Your task to perform on an android device: Go to Android settings Image 0: 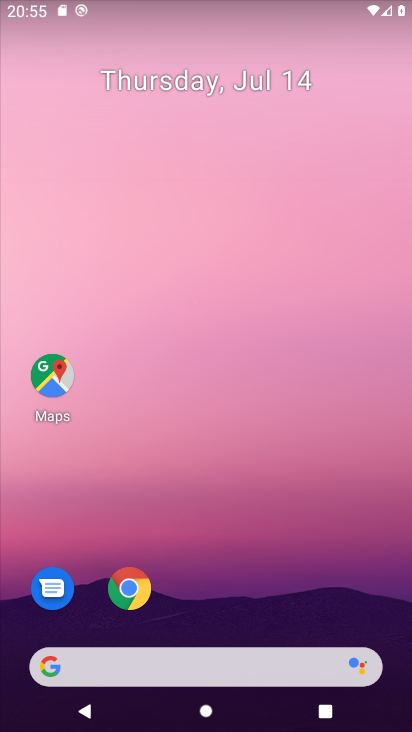
Step 0: drag from (367, 593) to (370, 128)
Your task to perform on an android device: Go to Android settings Image 1: 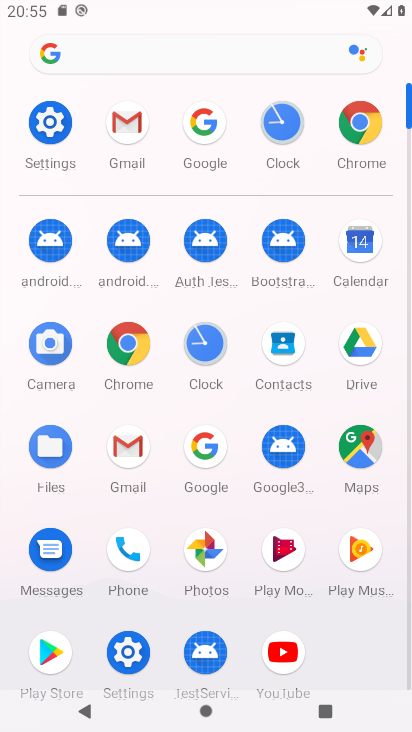
Step 1: click (129, 647)
Your task to perform on an android device: Go to Android settings Image 2: 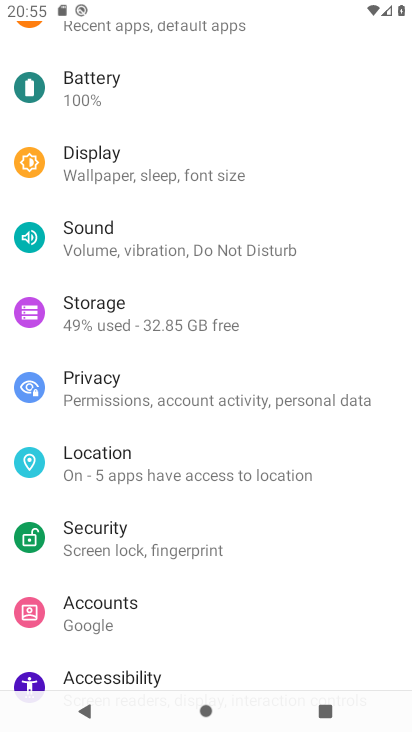
Step 2: drag from (342, 247) to (356, 332)
Your task to perform on an android device: Go to Android settings Image 3: 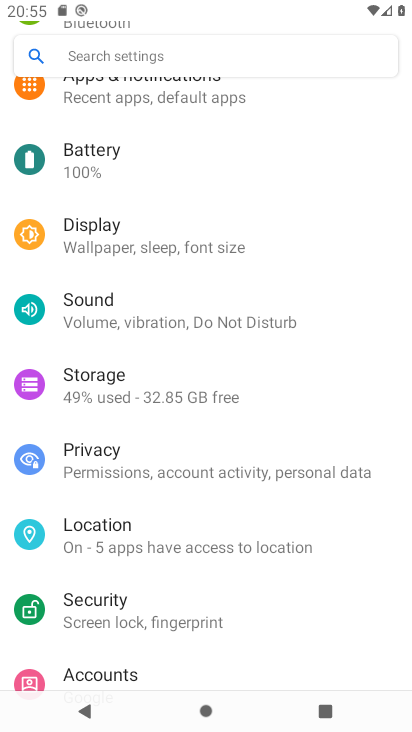
Step 3: drag from (355, 193) to (354, 294)
Your task to perform on an android device: Go to Android settings Image 4: 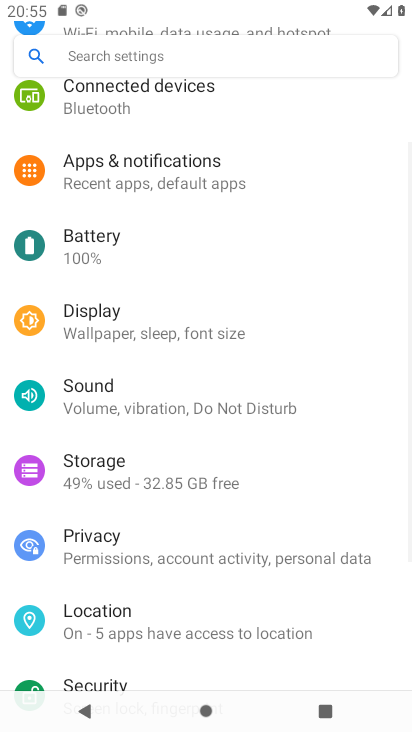
Step 4: drag from (342, 229) to (349, 409)
Your task to perform on an android device: Go to Android settings Image 5: 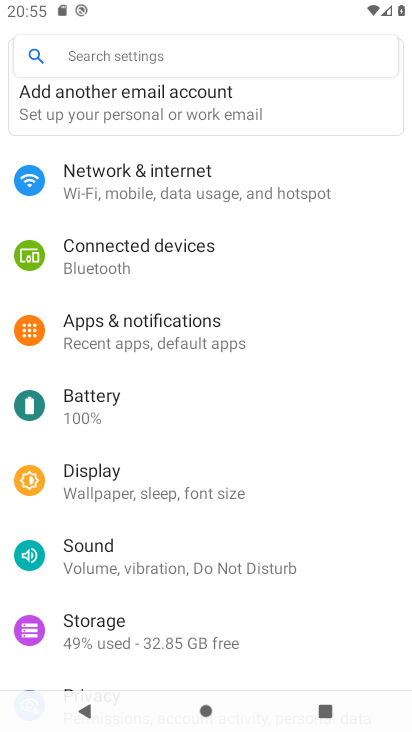
Step 5: drag from (367, 256) to (364, 438)
Your task to perform on an android device: Go to Android settings Image 6: 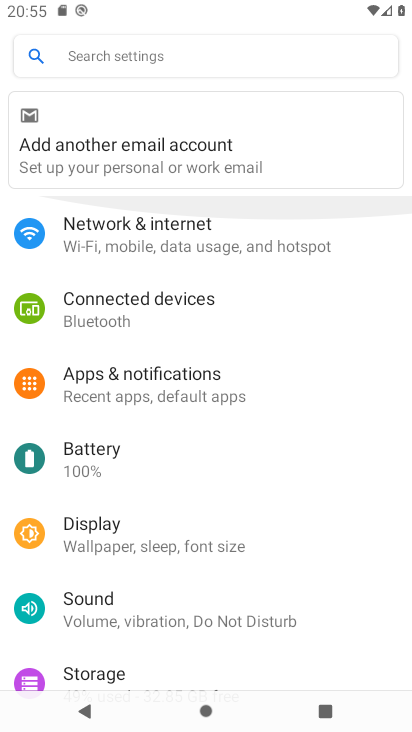
Step 6: drag from (344, 454) to (358, 343)
Your task to perform on an android device: Go to Android settings Image 7: 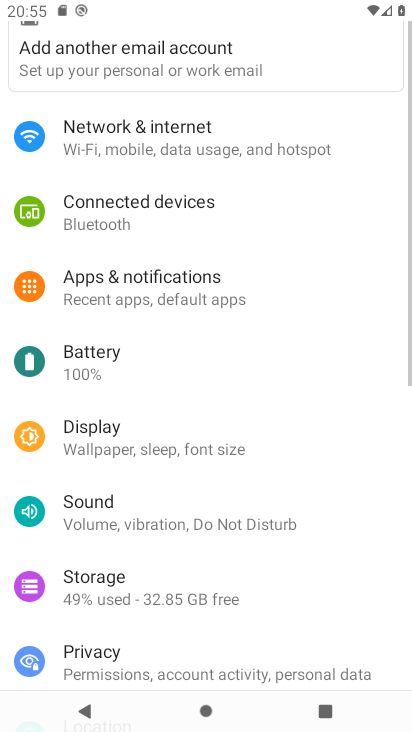
Step 7: drag from (350, 421) to (369, 302)
Your task to perform on an android device: Go to Android settings Image 8: 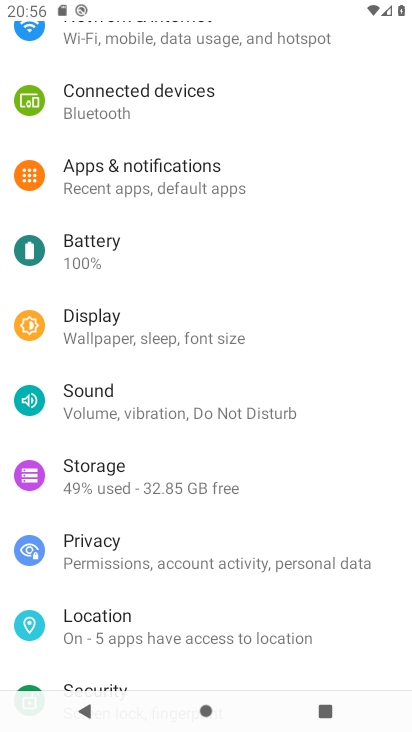
Step 8: drag from (357, 423) to (366, 300)
Your task to perform on an android device: Go to Android settings Image 9: 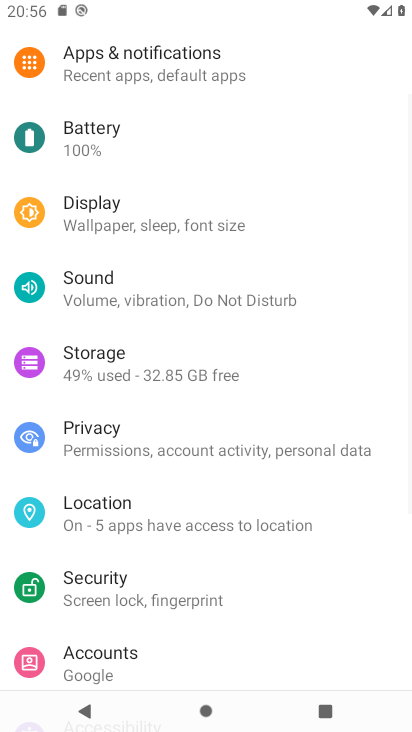
Step 9: drag from (365, 410) to (364, 284)
Your task to perform on an android device: Go to Android settings Image 10: 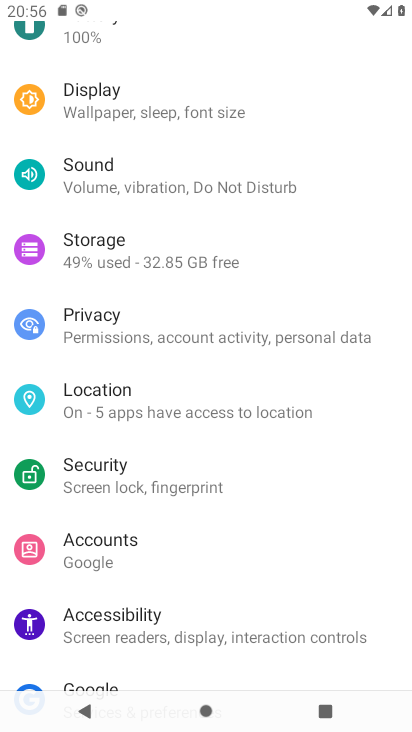
Step 10: drag from (361, 469) to (371, 374)
Your task to perform on an android device: Go to Android settings Image 11: 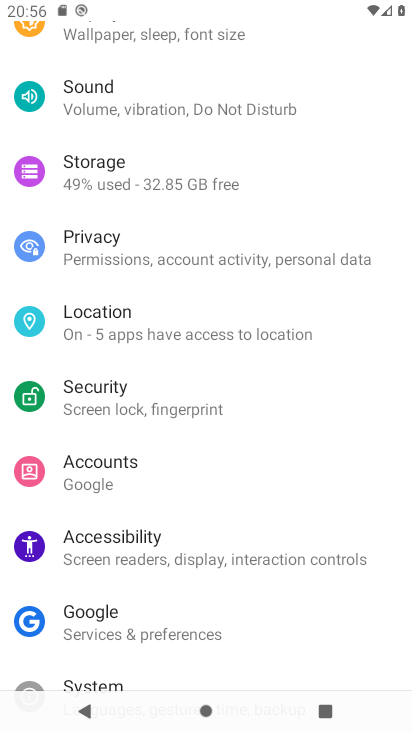
Step 11: drag from (371, 493) to (376, 380)
Your task to perform on an android device: Go to Android settings Image 12: 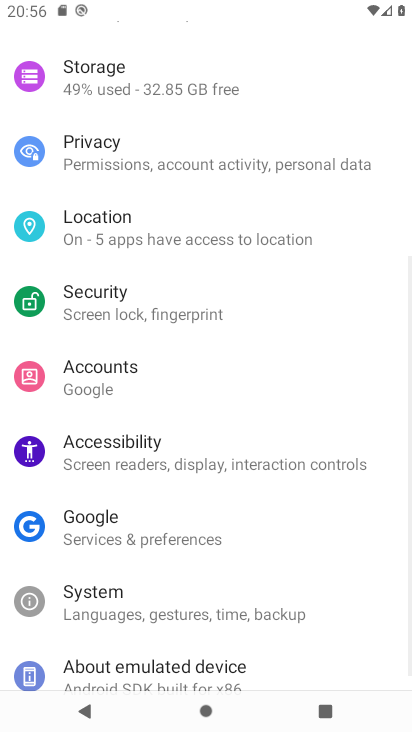
Step 12: drag from (369, 511) to (376, 391)
Your task to perform on an android device: Go to Android settings Image 13: 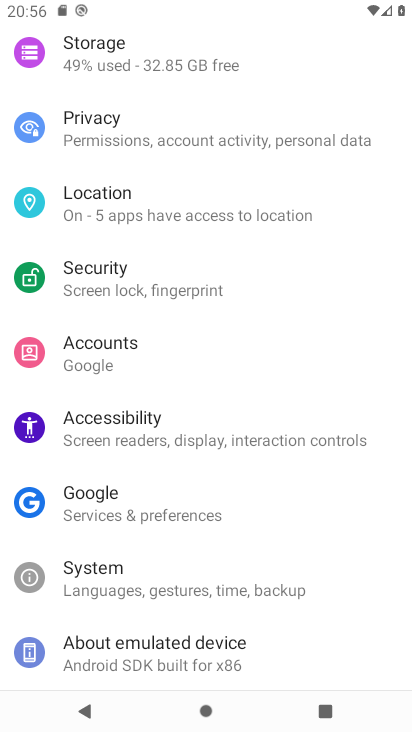
Step 13: click (303, 597)
Your task to perform on an android device: Go to Android settings Image 14: 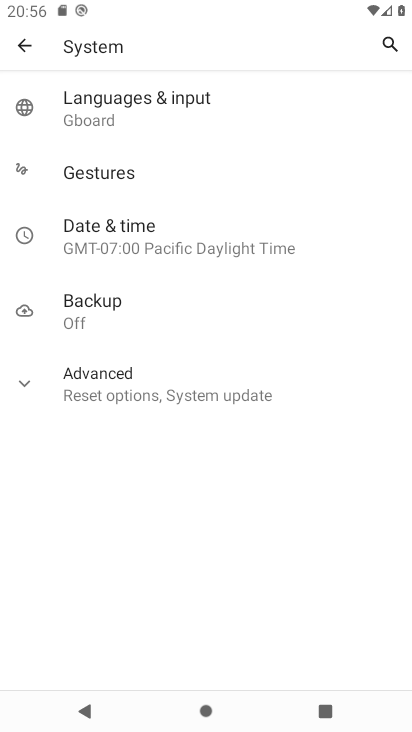
Step 14: click (278, 395)
Your task to perform on an android device: Go to Android settings Image 15: 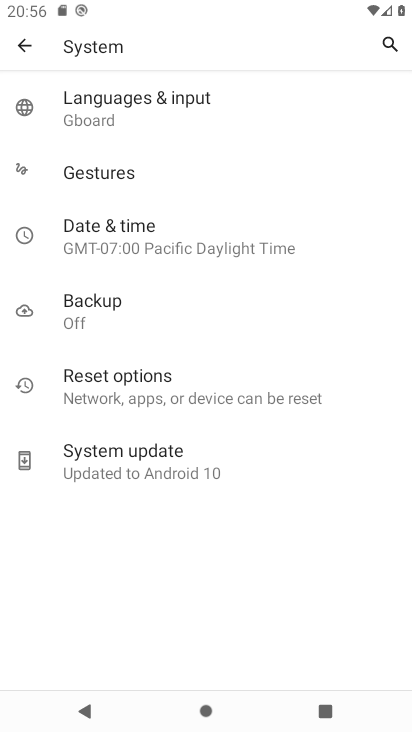
Step 15: task complete